Your task to perform on an android device: Open Google Maps and go to "Timeline" Image 0: 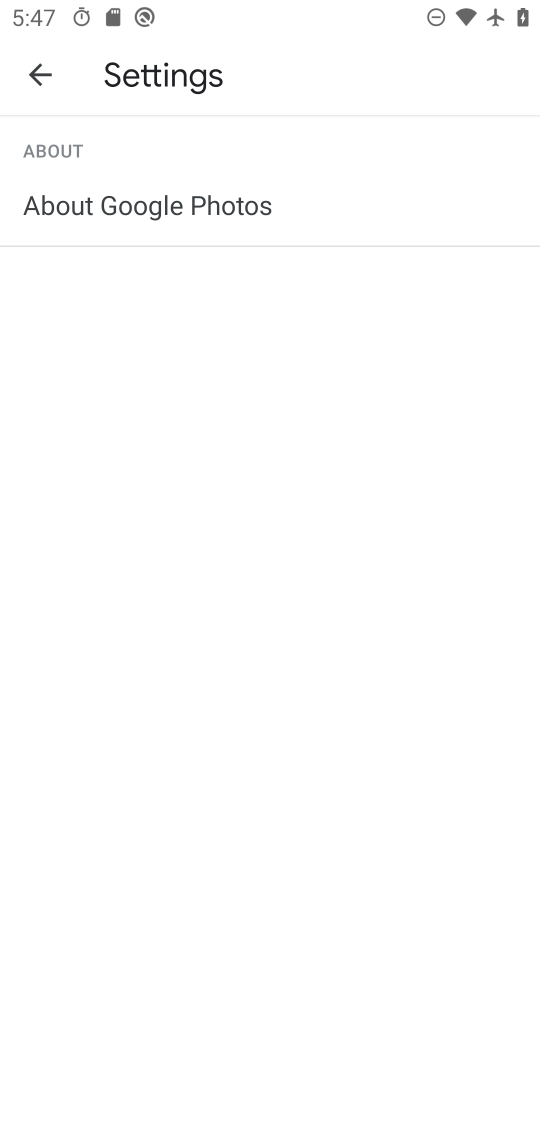
Step 0: press home button
Your task to perform on an android device: Open Google Maps and go to "Timeline" Image 1: 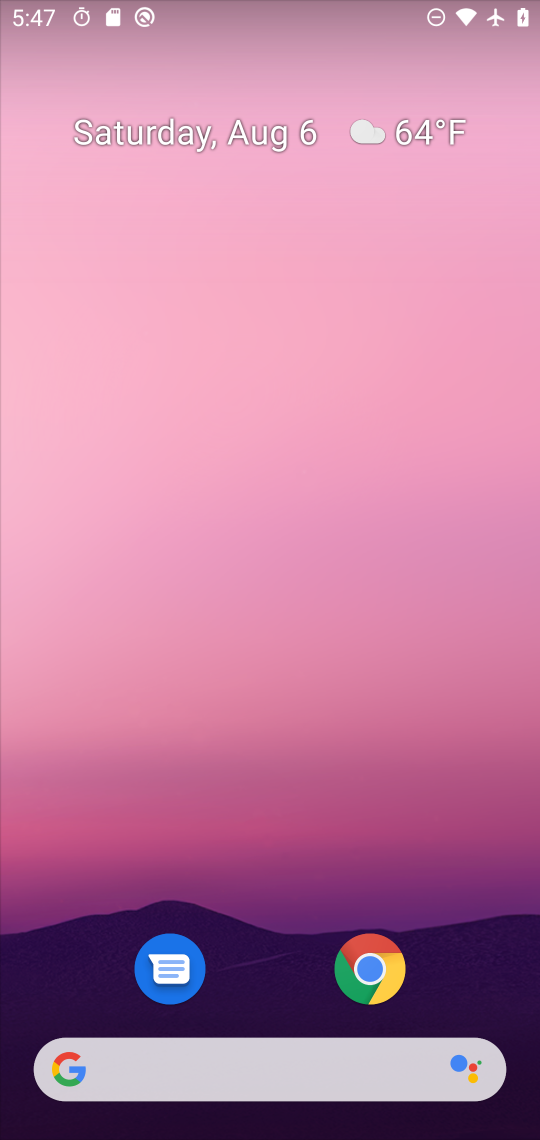
Step 1: drag from (332, 849) to (421, 116)
Your task to perform on an android device: Open Google Maps and go to "Timeline" Image 2: 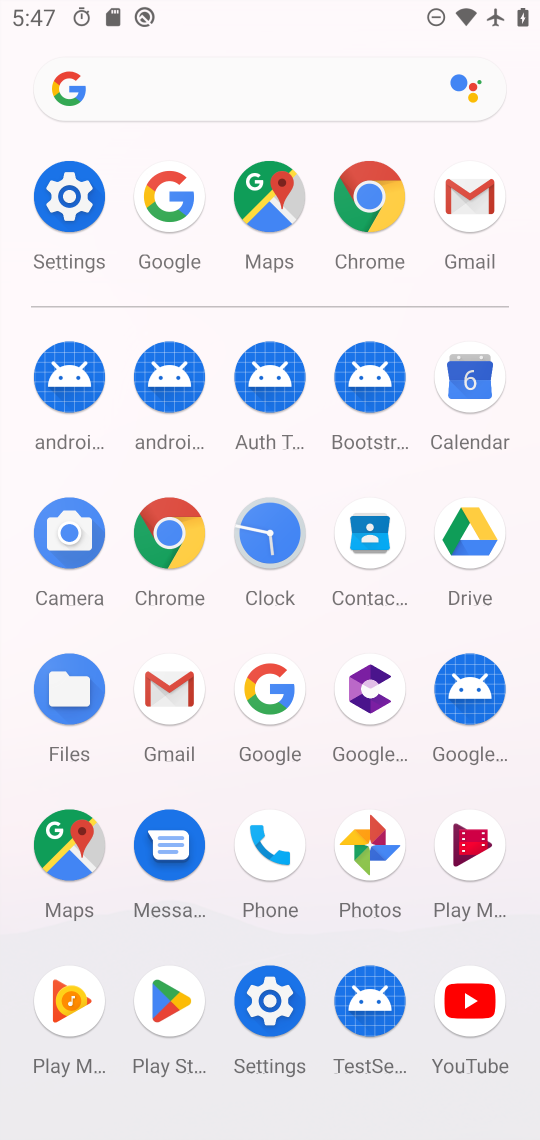
Step 2: click (258, 222)
Your task to perform on an android device: Open Google Maps and go to "Timeline" Image 3: 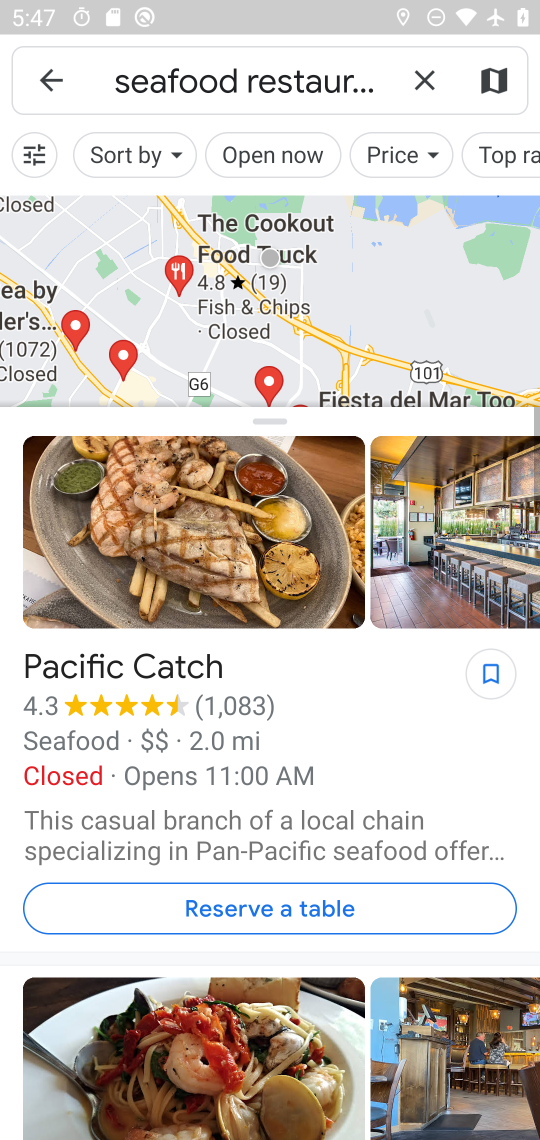
Step 3: click (54, 86)
Your task to perform on an android device: Open Google Maps and go to "Timeline" Image 4: 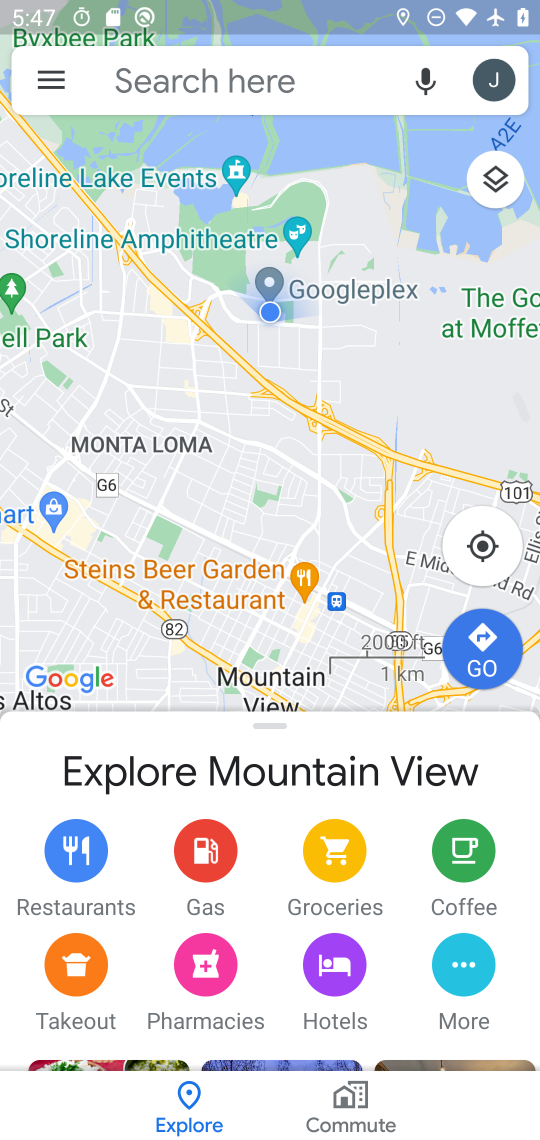
Step 4: click (49, 81)
Your task to perform on an android device: Open Google Maps and go to "Timeline" Image 5: 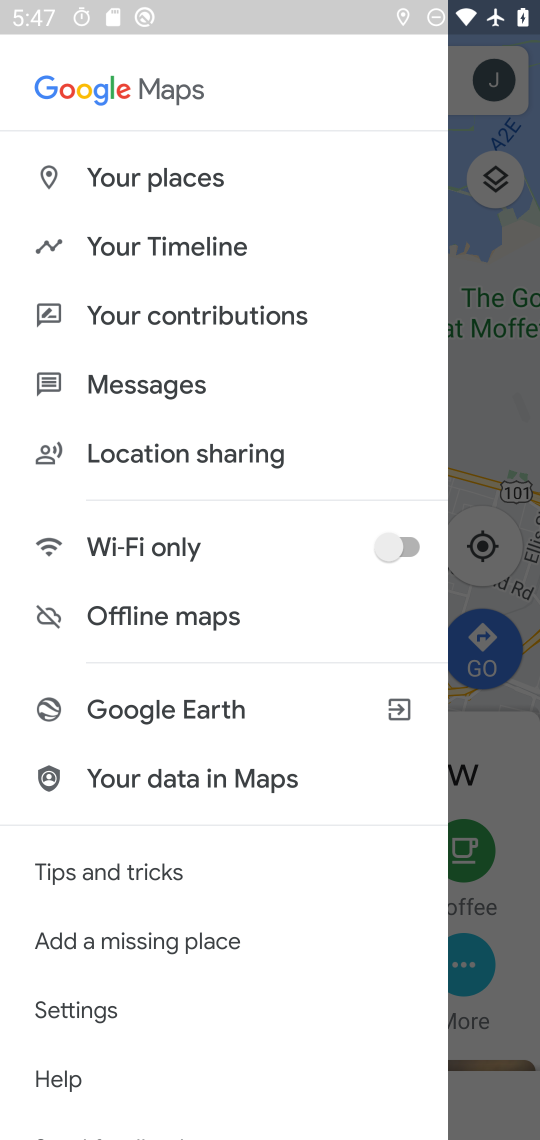
Step 5: click (142, 248)
Your task to perform on an android device: Open Google Maps and go to "Timeline" Image 6: 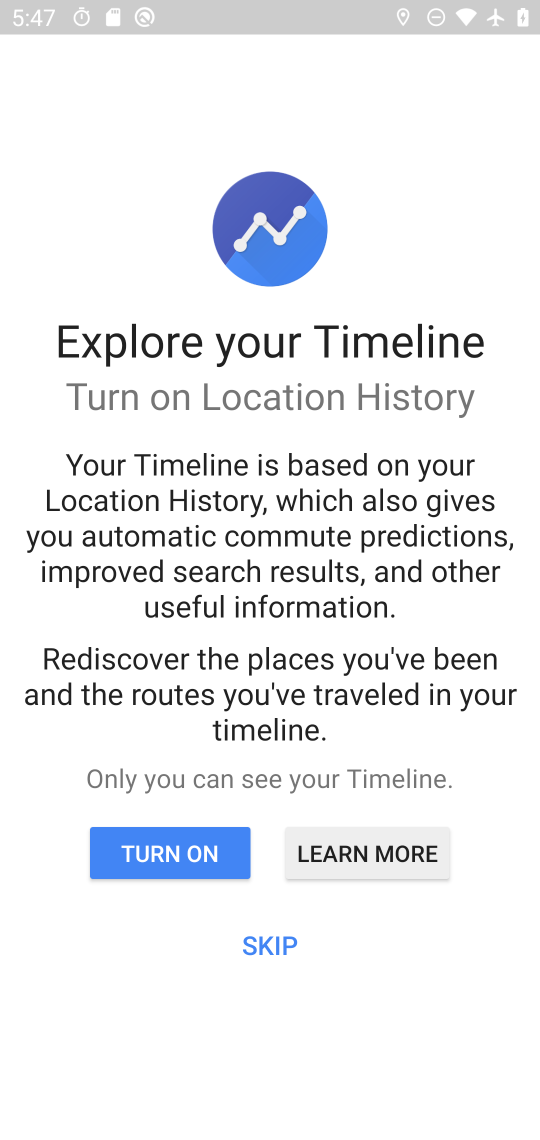
Step 6: click (184, 845)
Your task to perform on an android device: Open Google Maps and go to "Timeline" Image 7: 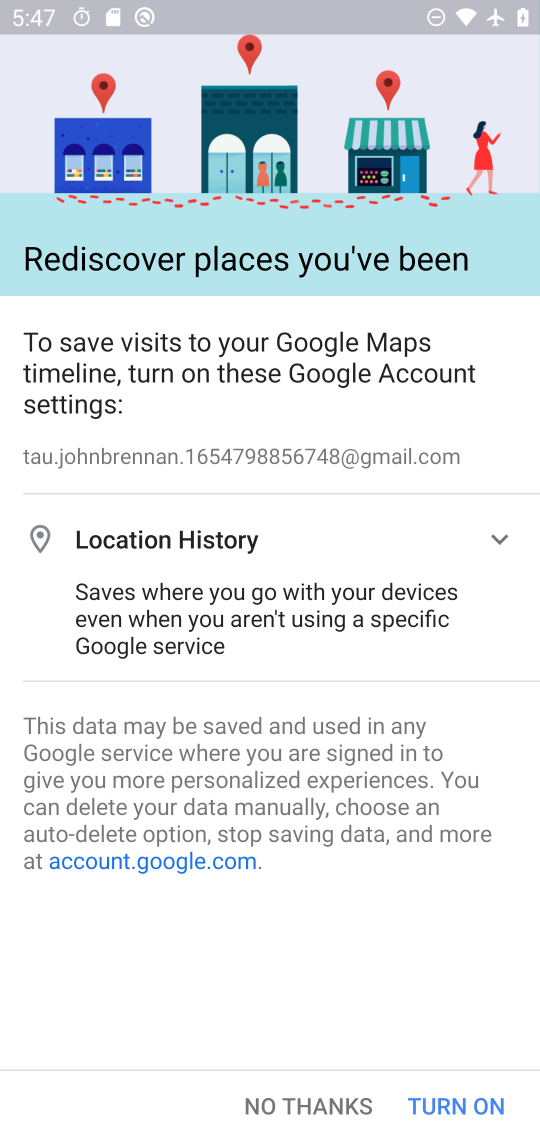
Step 7: click (453, 1116)
Your task to perform on an android device: Open Google Maps and go to "Timeline" Image 8: 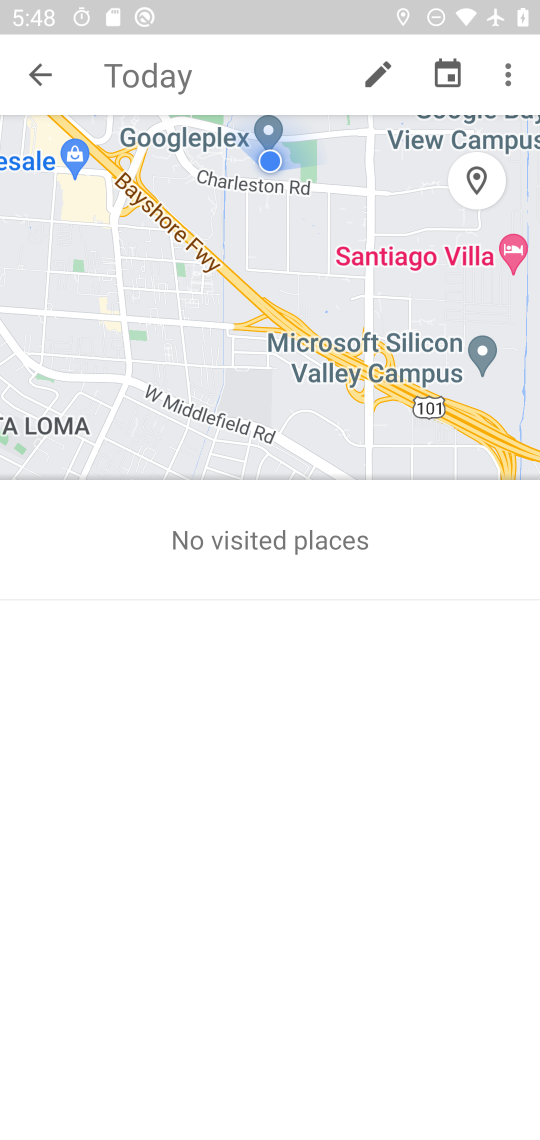
Step 8: task complete